Your task to perform on an android device: check battery use Image 0: 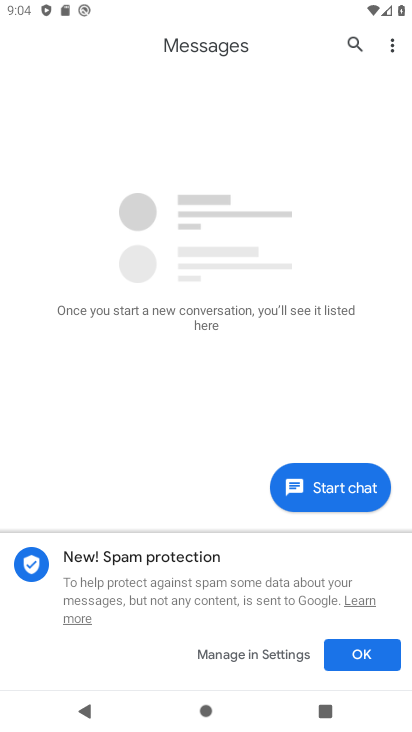
Step 0: press back button
Your task to perform on an android device: check battery use Image 1: 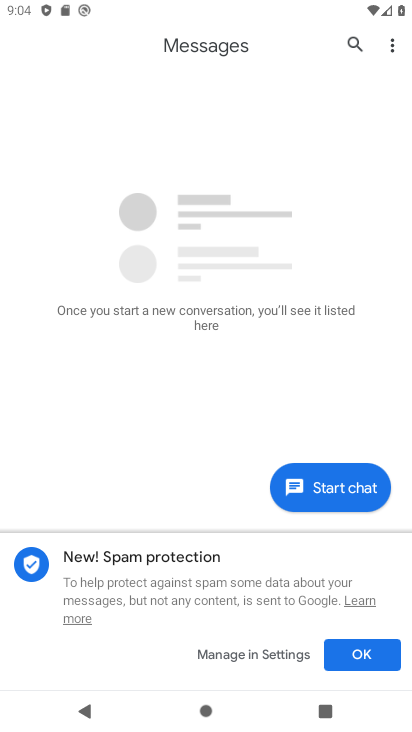
Step 1: press back button
Your task to perform on an android device: check battery use Image 2: 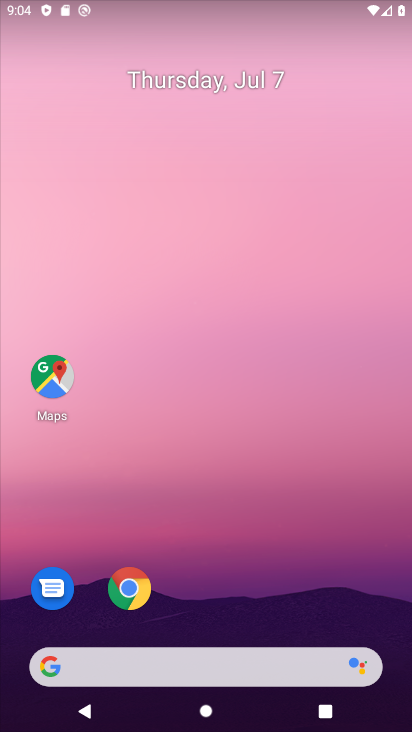
Step 2: press home button
Your task to perform on an android device: check battery use Image 3: 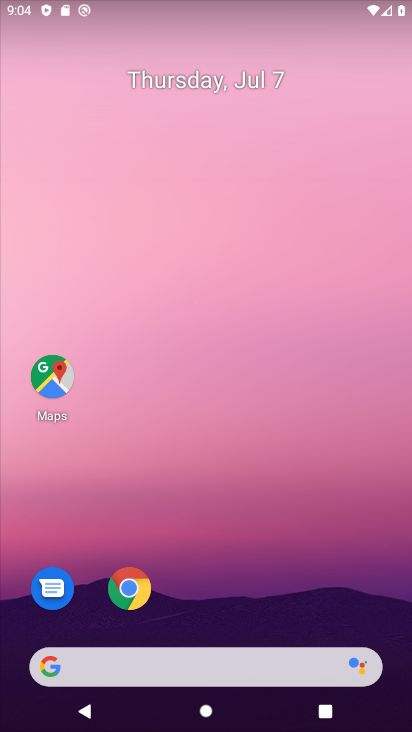
Step 3: press home button
Your task to perform on an android device: check battery use Image 4: 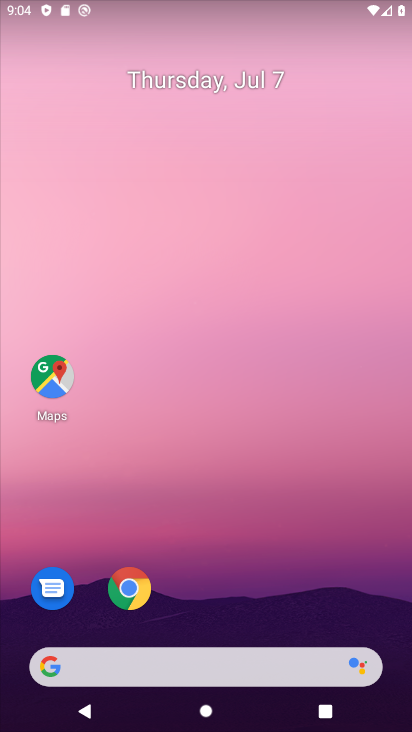
Step 4: click (171, 145)
Your task to perform on an android device: check battery use Image 5: 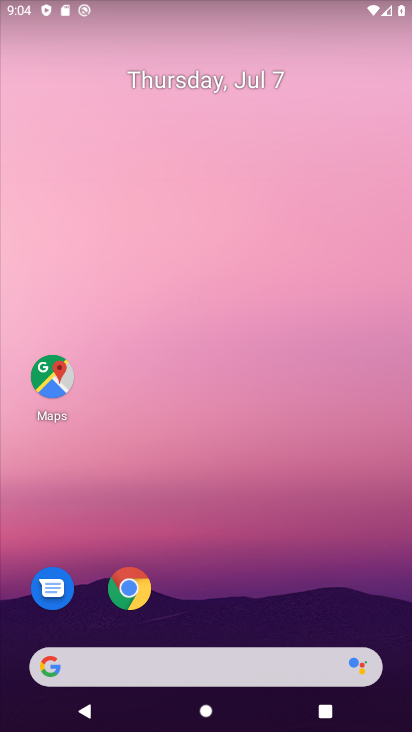
Step 5: drag from (302, 649) to (167, 254)
Your task to perform on an android device: check battery use Image 6: 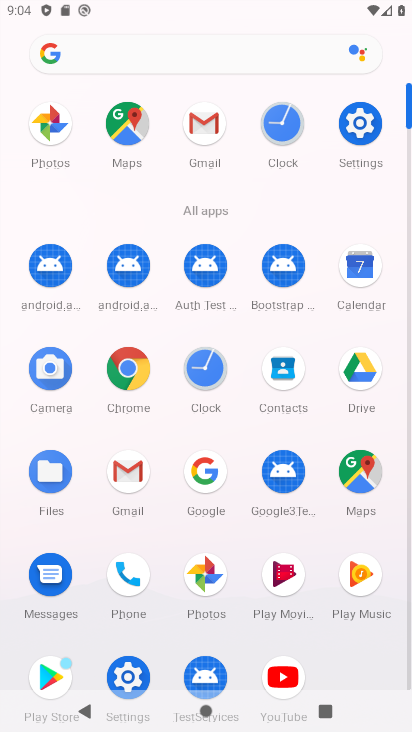
Step 6: click (191, 8)
Your task to perform on an android device: check battery use Image 7: 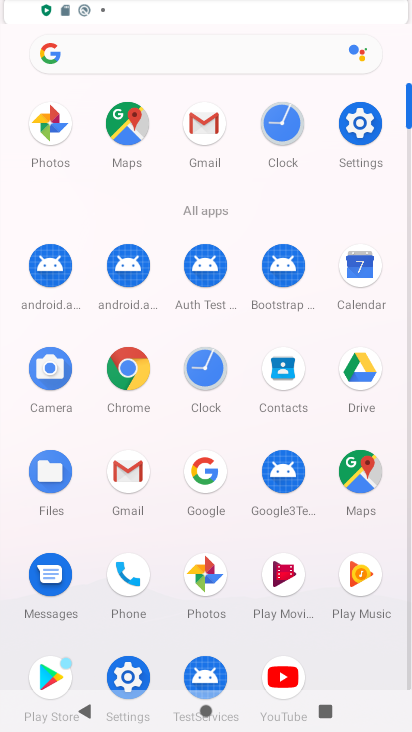
Step 7: click (354, 126)
Your task to perform on an android device: check battery use Image 8: 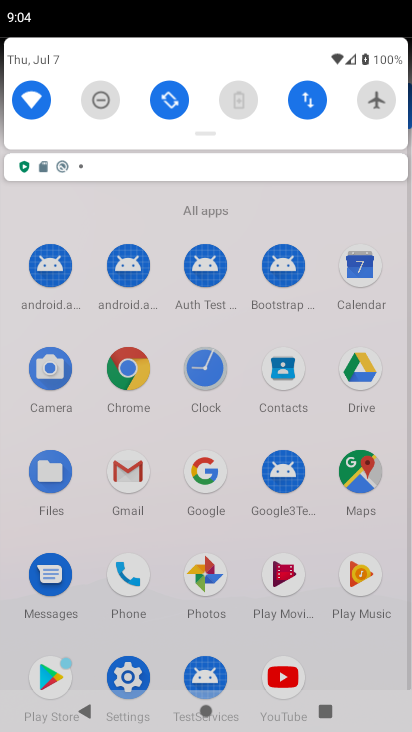
Step 8: click (354, 126)
Your task to perform on an android device: check battery use Image 9: 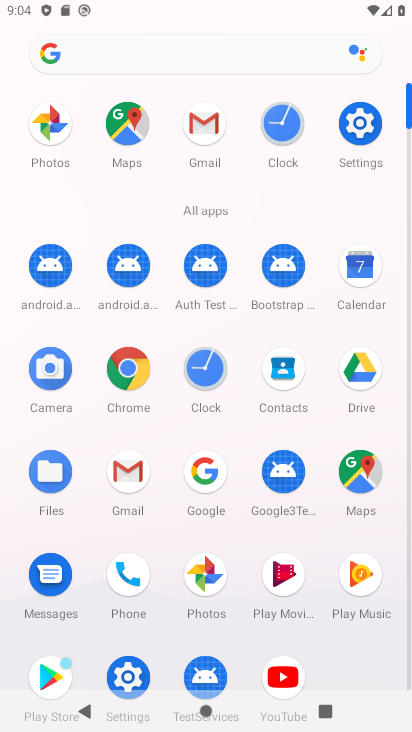
Step 9: click (349, 104)
Your task to perform on an android device: check battery use Image 10: 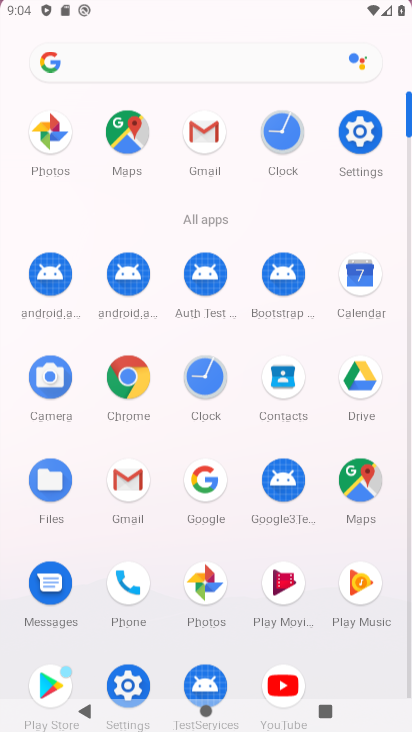
Step 10: click (358, 120)
Your task to perform on an android device: check battery use Image 11: 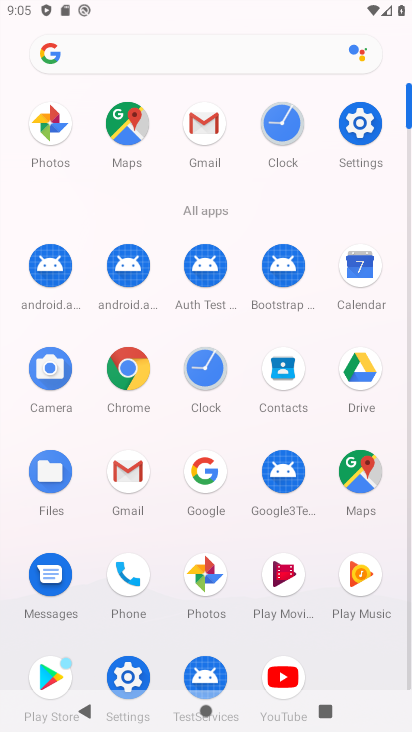
Step 11: click (354, 123)
Your task to perform on an android device: check battery use Image 12: 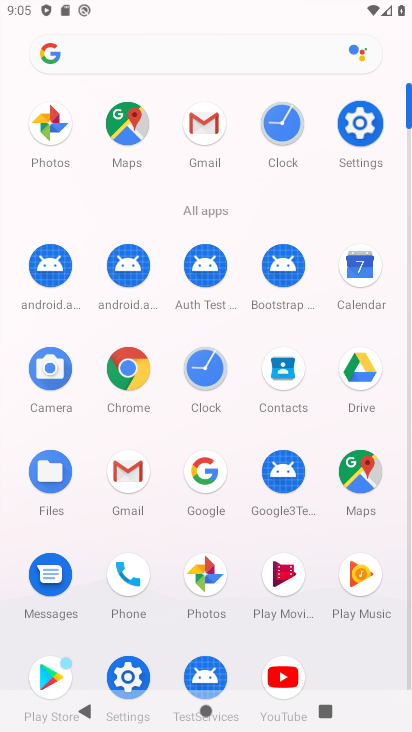
Step 12: click (354, 123)
Your task to perform on an android device: check battery use Image 13: 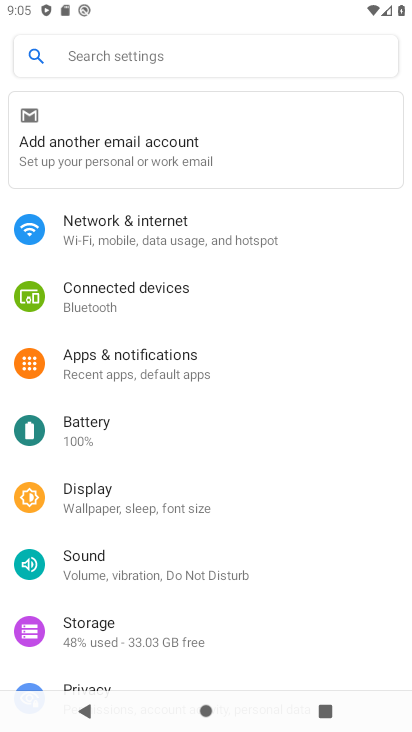
Step 13: drag from (128, 569) to (83, 145)
Your task to perform on an android device: check battery use Image 14: 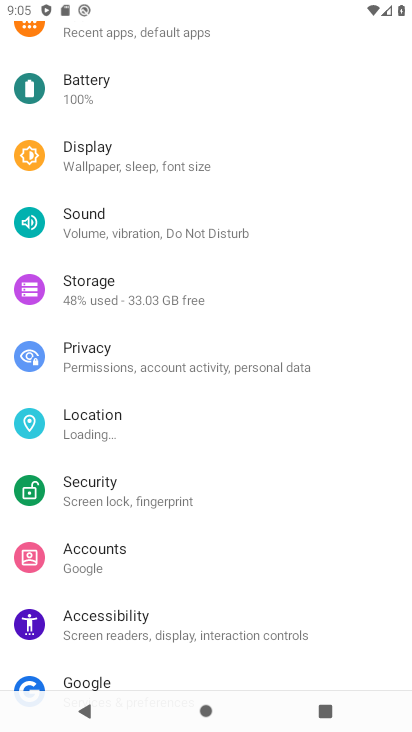
Step 14: drag from (135, 429) to (165, 253)
Your task to perform on an android device: check battery use Image 15: 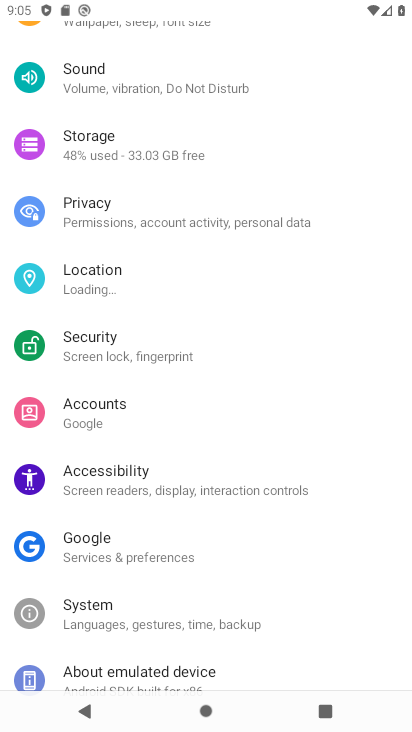
Step 15: drag from (169, 503) to (112, 216)
Your task to perform on an android device: check battery use Image 16: 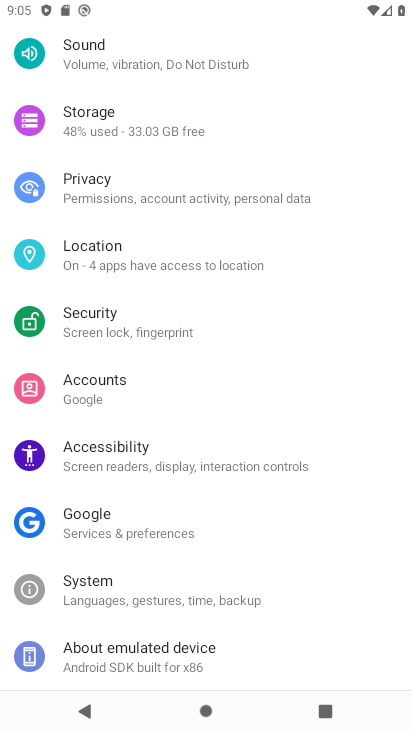
Step 16: drag from (81, 214) to (124, 557)
Your task to perform on an android device: check battery use Image 17: 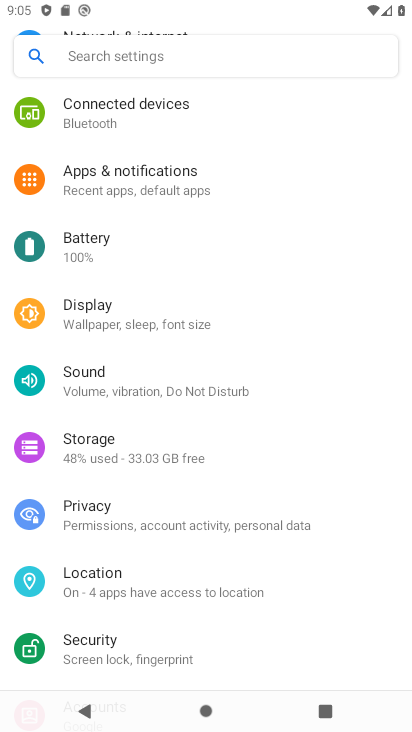
Step 17: drag from (122, 196) to (203, 501)
Your task to perform on an android device: check battery use Image 18: 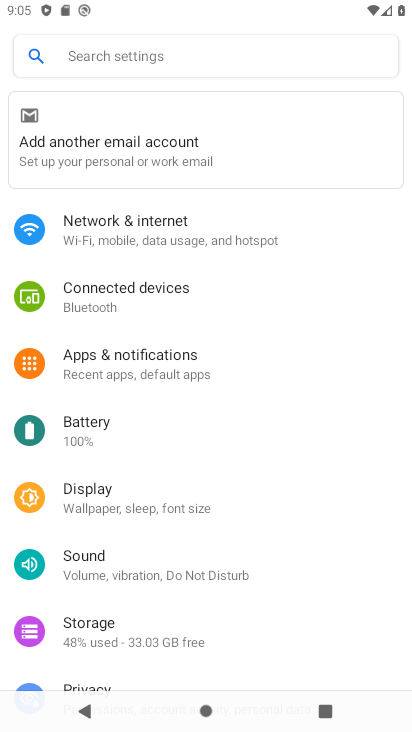
Step 18: click (81, 430)
Your task to perform on an android device: check battery use Image 19: 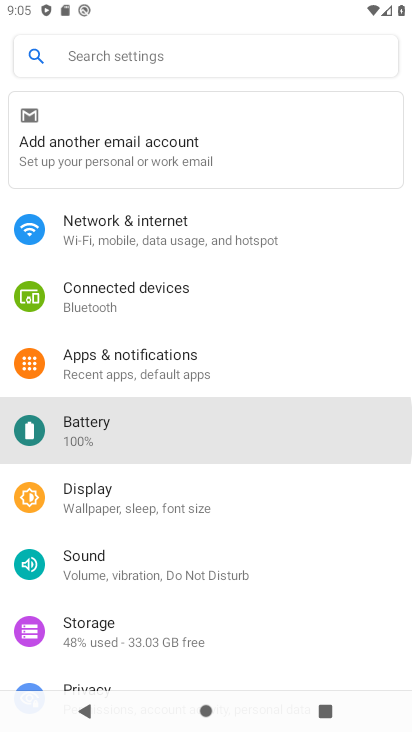
Step 19: click (78, 431)
Your task to perform on an android device: check battery use Image 20: 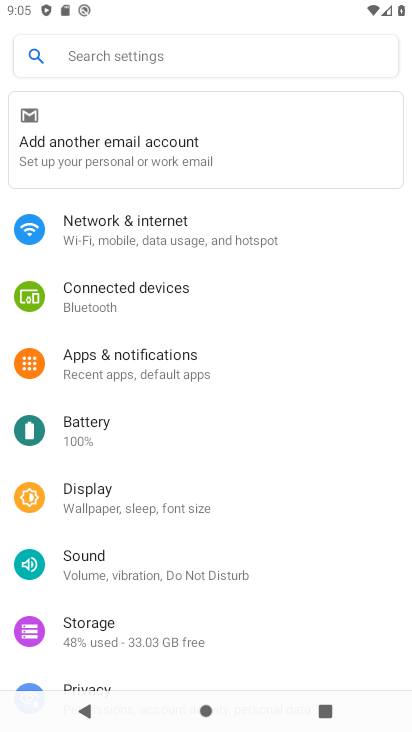
Step 20: click (78, 431)
Your task to perform on an android device: check battery use Image 21: 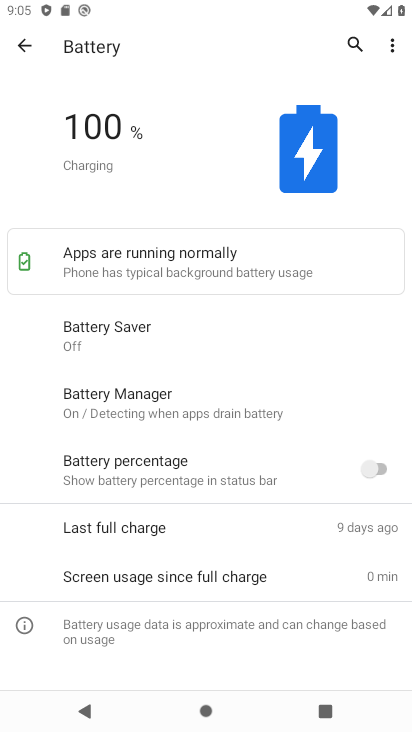
Step 21: task complete